Your task to perform on an android device: Clear the shopping cart on ebay. Search for "macbook air" on ebay, select the first entry, and add it to the cart. Image 0: 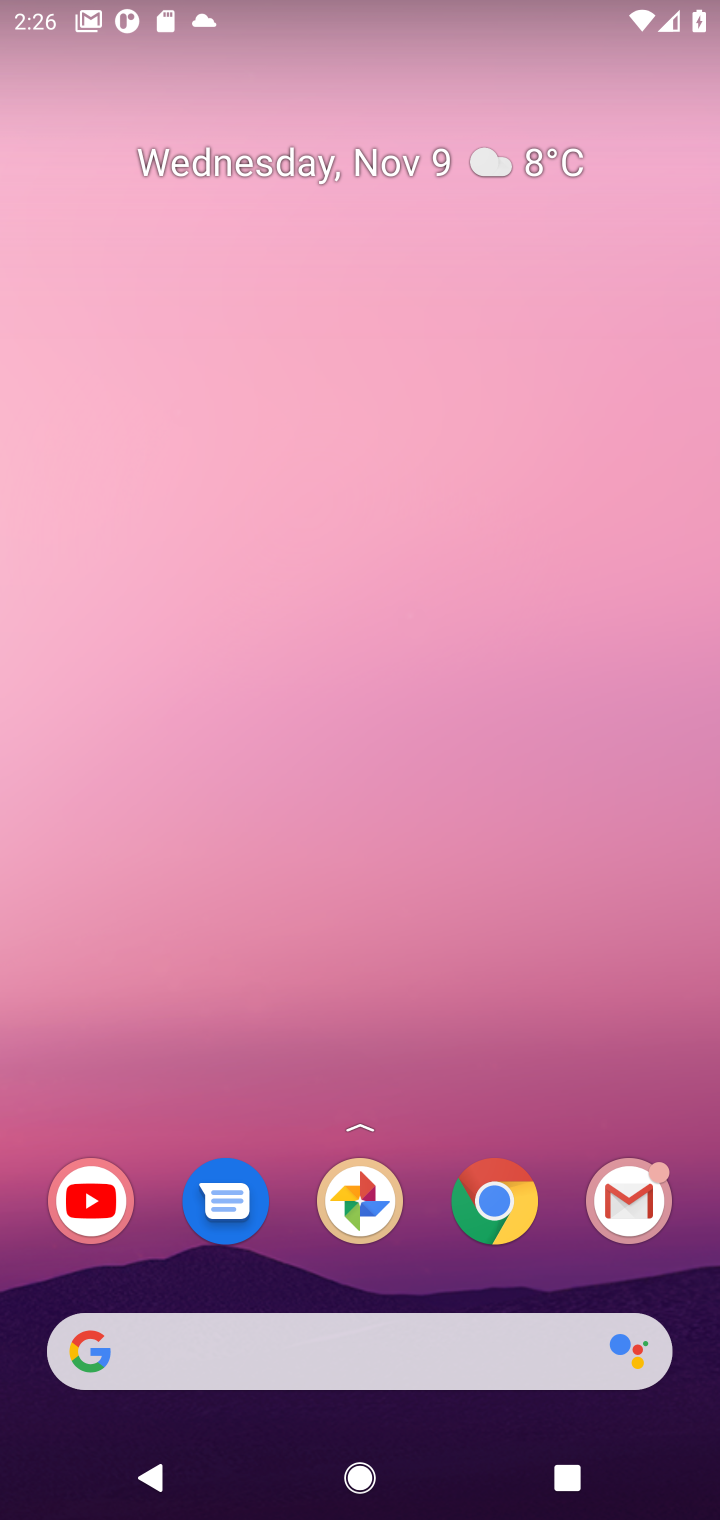
Step 0: click (370, 1351)
Your task to perform on an android device: Clear the shopping cart on ebay. Search for "macbook air" on ebay, select the first entry, and add it to the cart. Image 1: 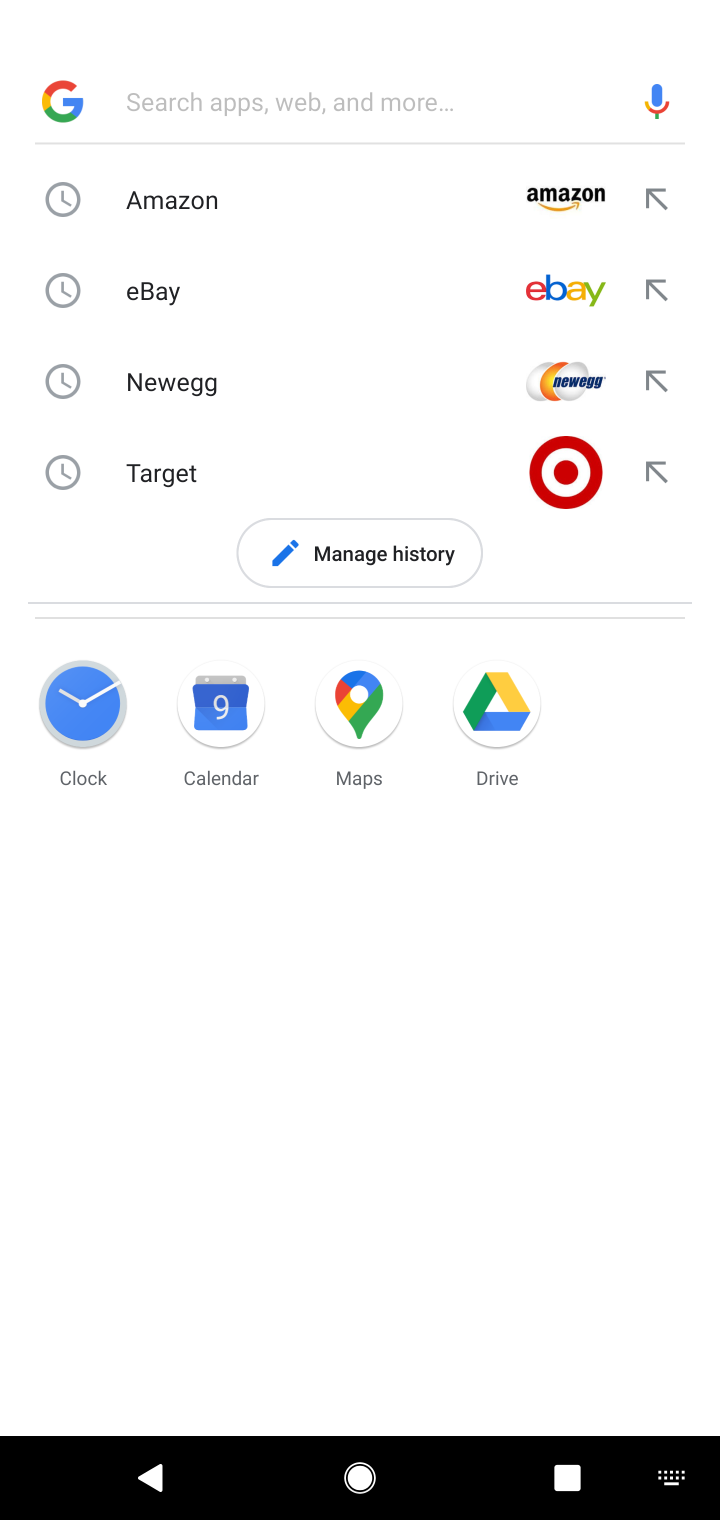
Step 1: click (352, 274)
Your task to perform on an android device: Clear the shopping cart on ebay. Search for "macbook air" on ebay, select the first entry, and add it to the cart. Image 2: 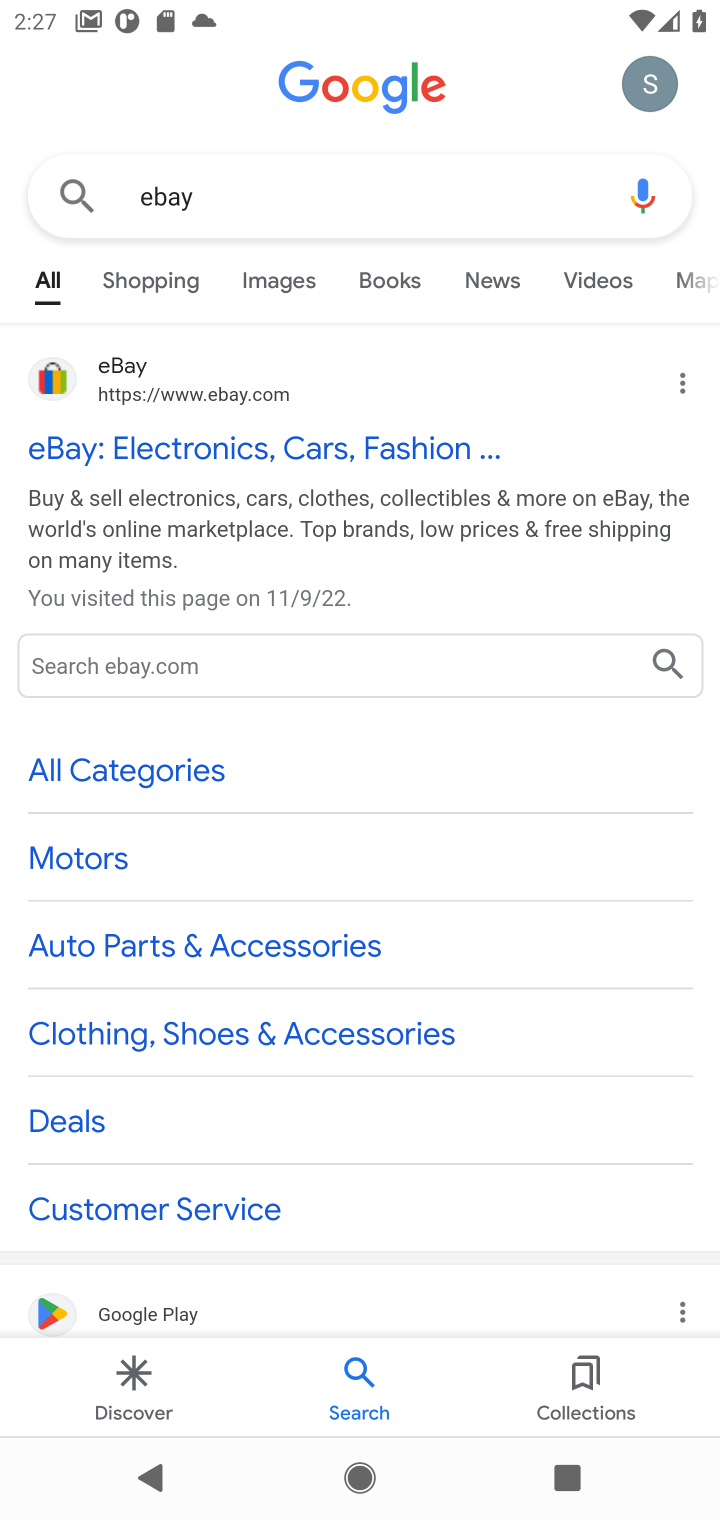
Step 2: click (125, 359)
Your task to perform on an android device: Clear the shopping cart on ebay. Search for "macbook air" on ebay, select the first entry, and add it to the cart. Image 3: 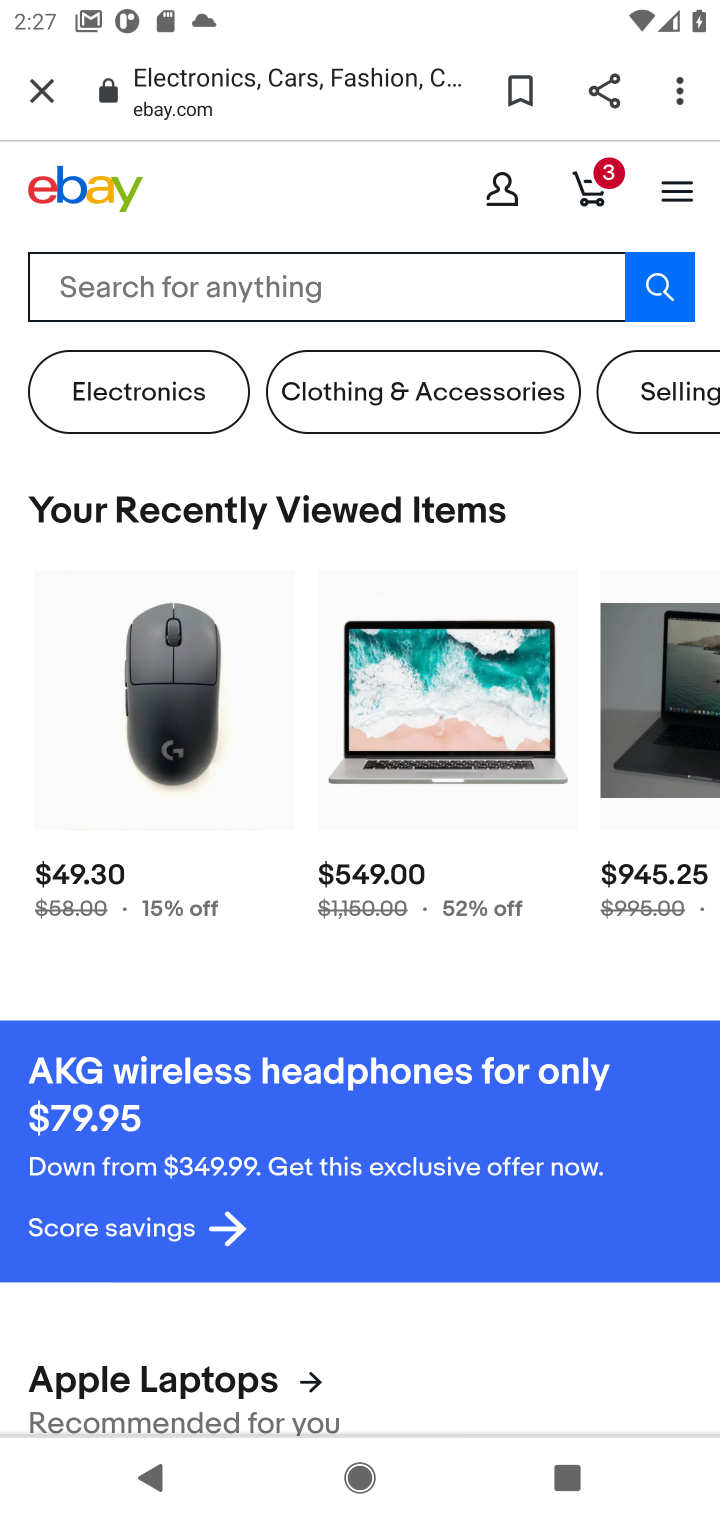
Step 3: click (369, 284)
Your task to perform on an android device: Clear the shopping cart on ebay. Search for "macbook air" on ebay, select the first entry, and add it to the cart. Image 4: 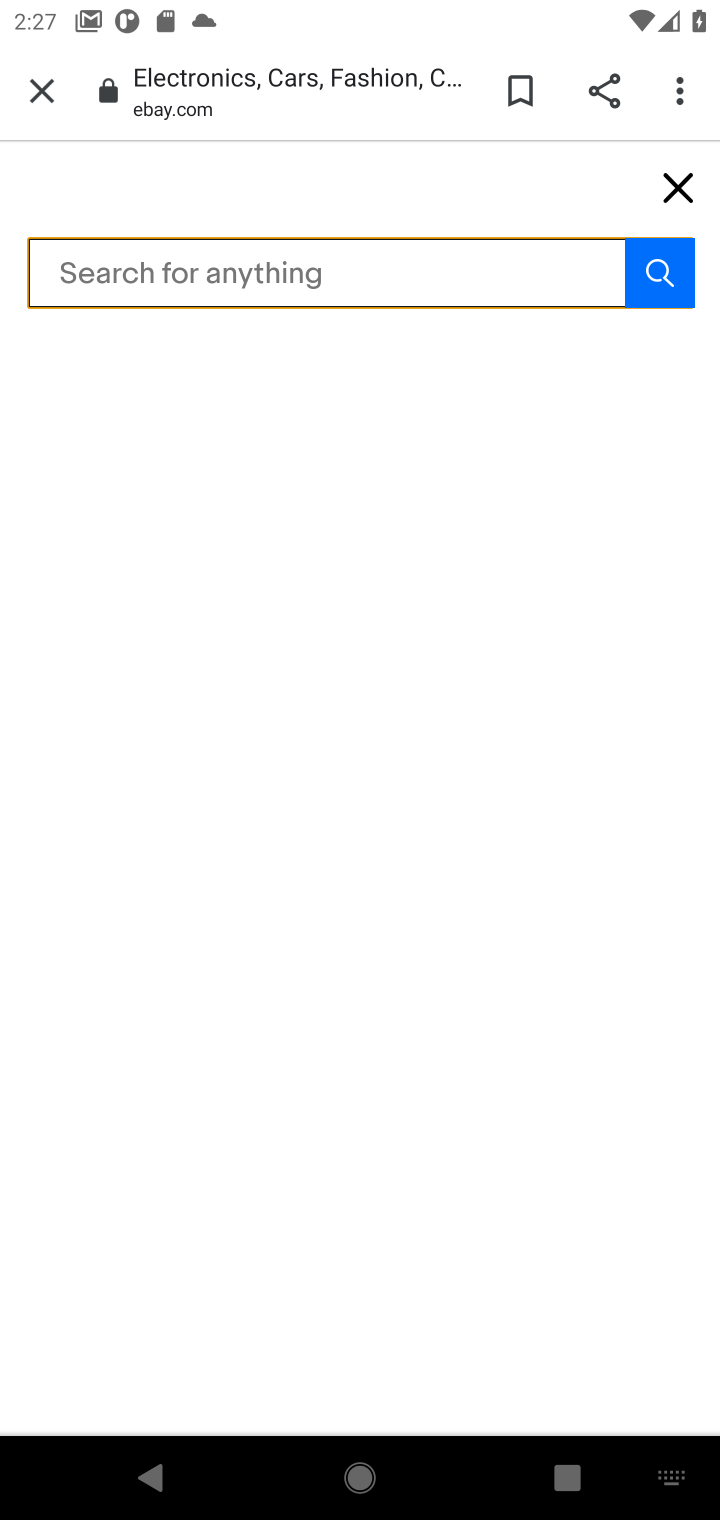
Step 4: type "macbook air"
Your task to perform on an android device: Clear the shopping cart on ebay. Search for "macbook air" on ebay, select the first entry, and add it to the cart. Image 5: 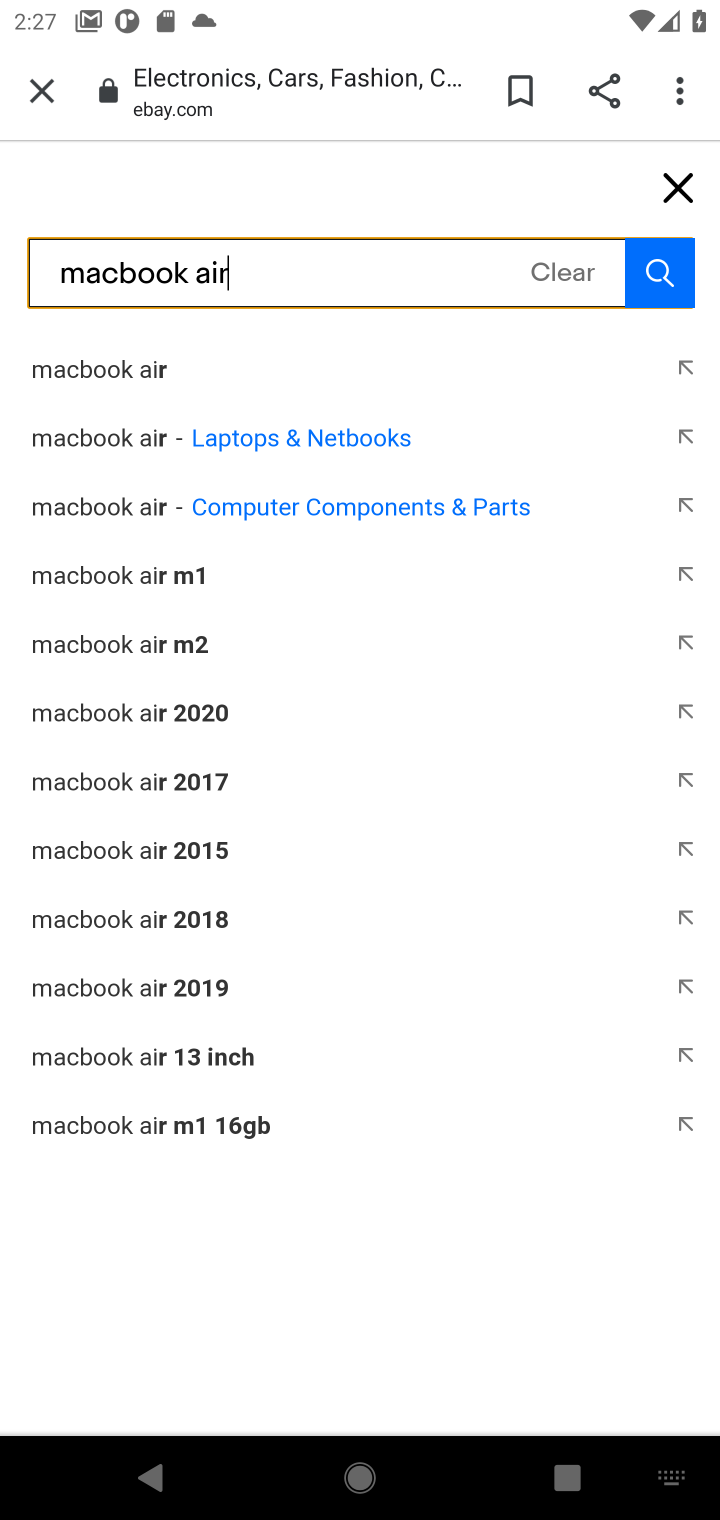
Step 5: click (110, 367)
Your task to perform on an android device: Clear the shopping cart on ebay. Search for "macbook air" on ebay, select the first entry, and add it to the cart. Image 6: 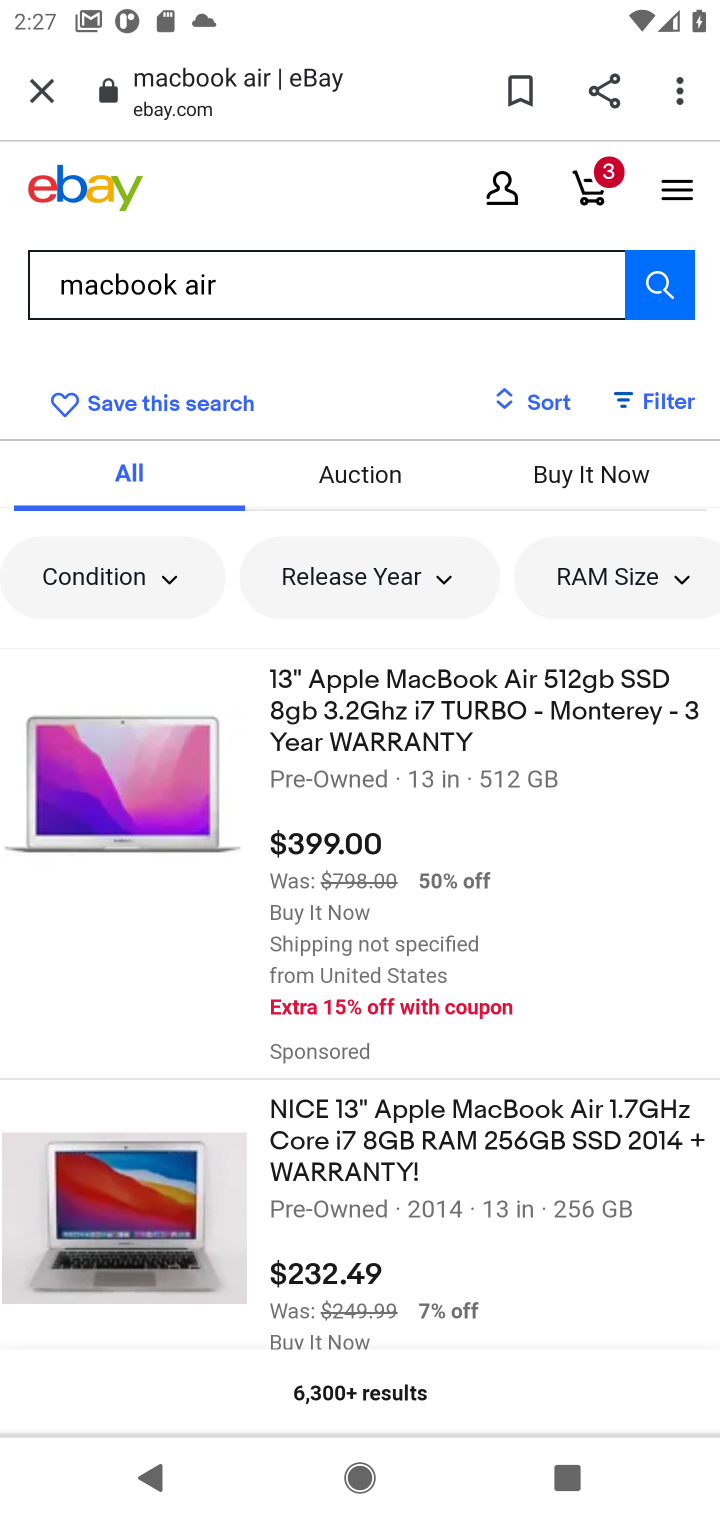
Step 6: click (419, 689)
Your task to perform on an android device: Clear the shopping cart on ebay. Search for "macbook air" on ebay, select the first entry, and add it to the cart. Image 7: 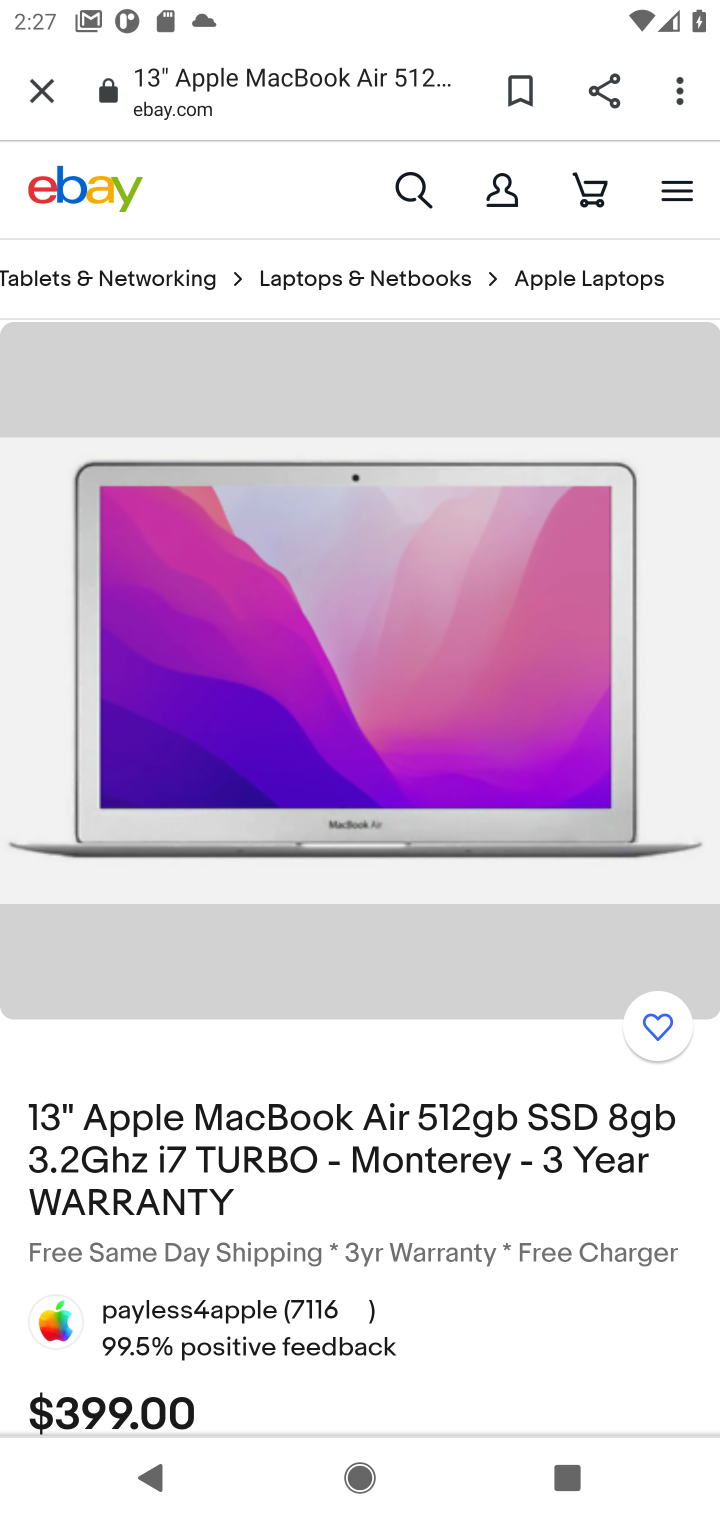
Step 7: drag from (285, 989) to (285, 701)
Your task to perform on an android device: Clear the shopping cart on ebay. Search for "macbook air" on ebay, select the first entry, and add it to the cart. Image 8: 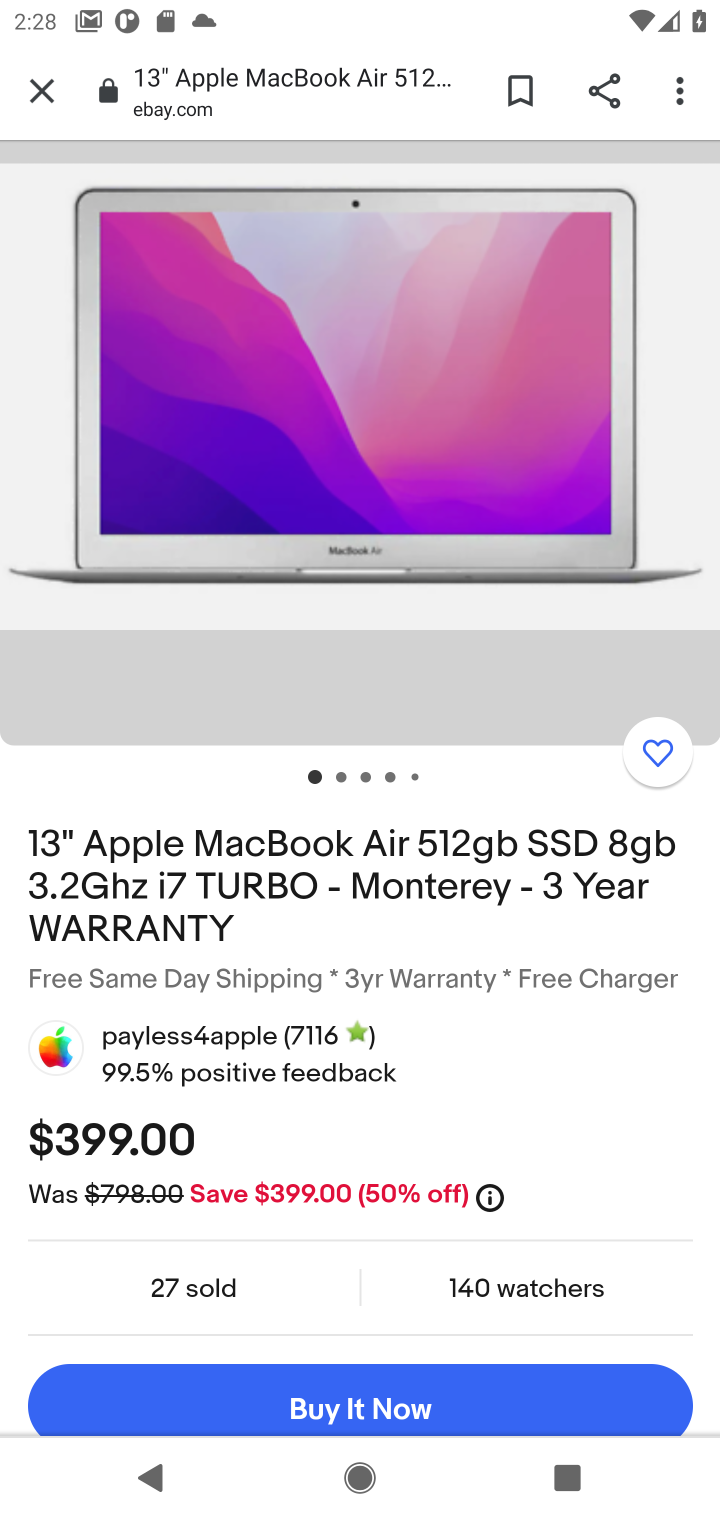
Step 8: drag from (335, 1314) to (330, 998)
Your task to perform on an android device: Clear the shopping cart on ebay. Search for "macbook air" on ebay, select the first entry, and add it to the cart. Image 9: 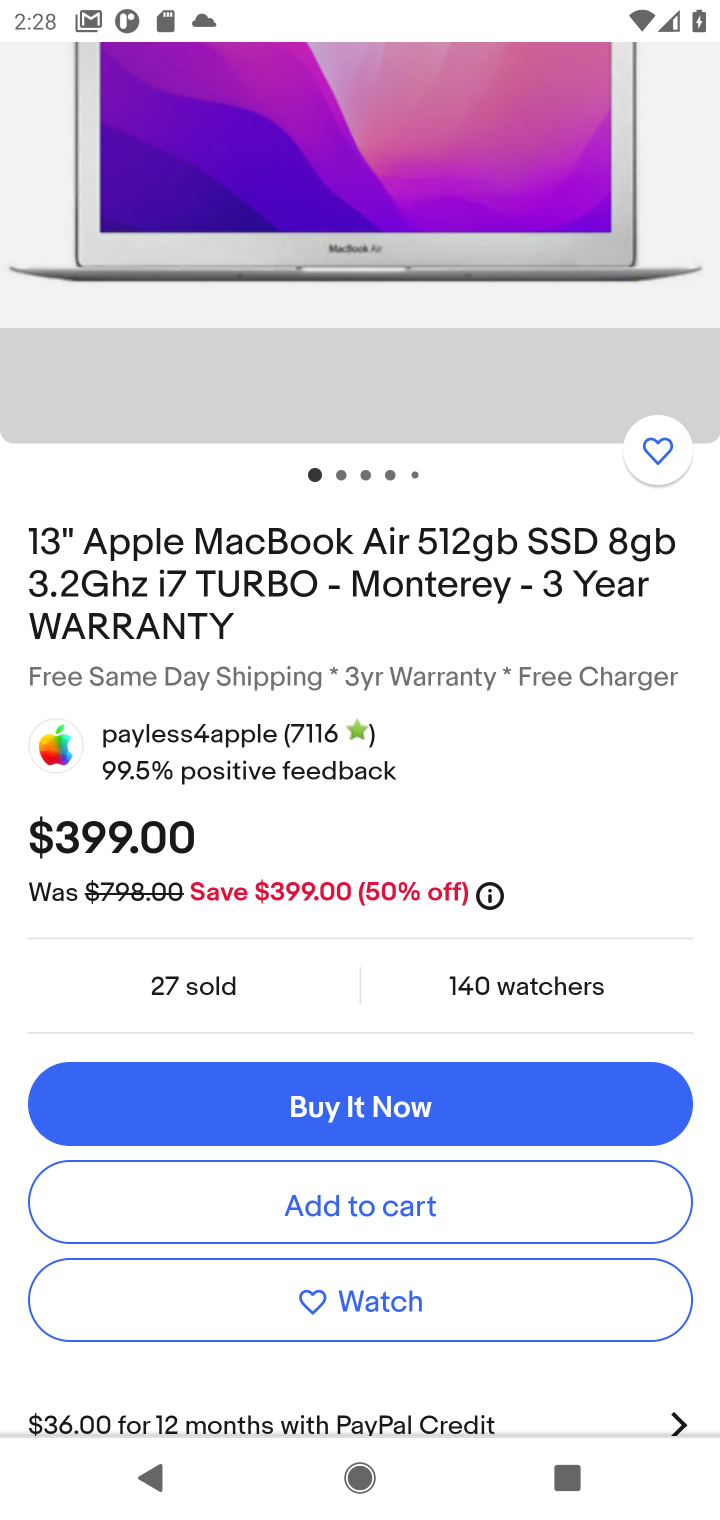
Step 9: click (351, 1213)
Your task to perform on an android device: Clear the shopping cart on ebay. Search for "macbook air" on ebay, select the first entry, and add it to the cart. Image 10: 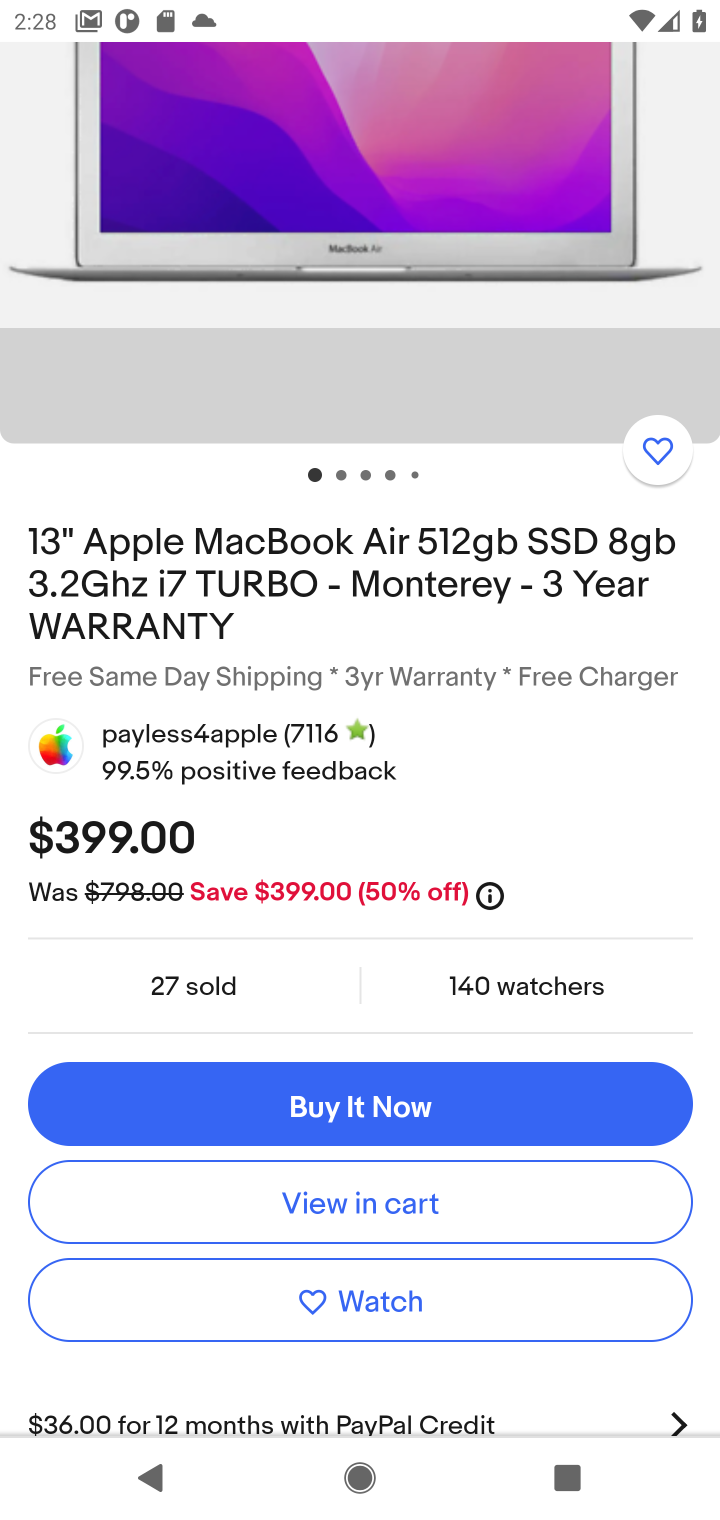
Step 10: task complete